Your task to perform on an android device: open chrome and create a bookmark for the current page Image 0: 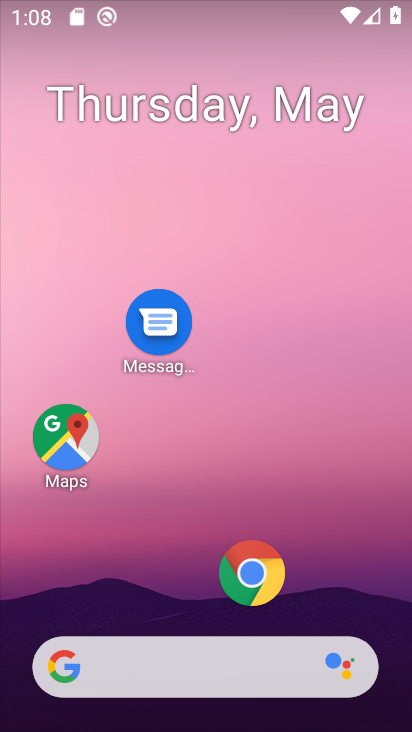
Step 0: drag from (209, 619) to (209, 31)
Your task to perform on an android device: open chrome and create a bookmark for the current page Image 1: 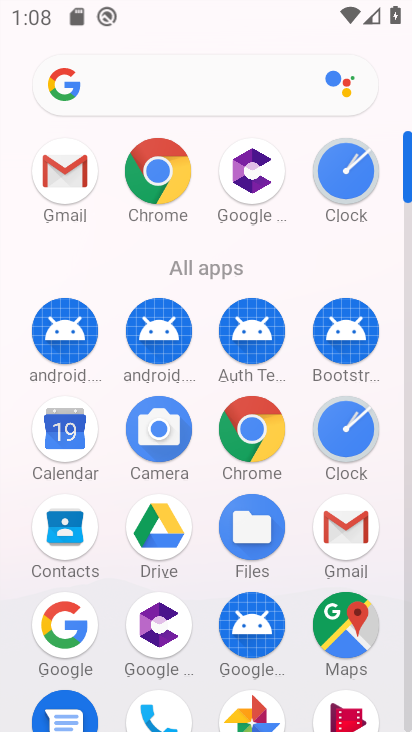
Step 1: click (143, 162)
Your task to perform on an android device: open chrome and create a bookmark for the current page Image 2: 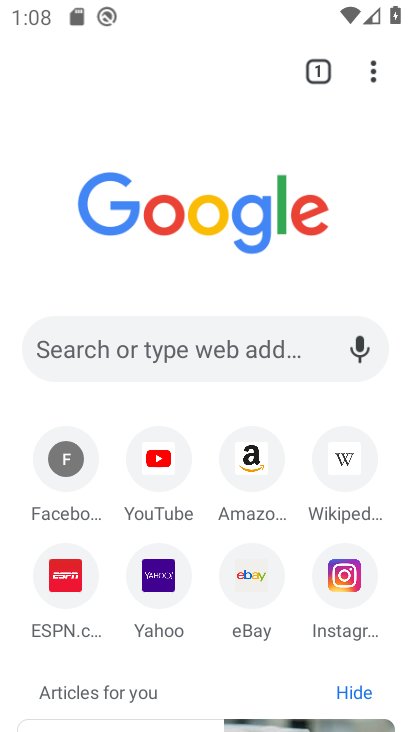
Step 2: click (373, 92)
Your task to perform on an android device: open chrome and create a bookmark for the current page Image 3: 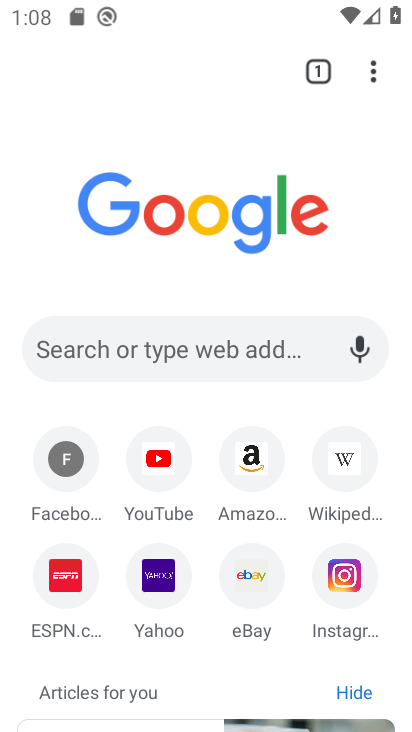
Step 3: click (361, 61)
Your task to perform on an android device: open chrome and create a bookmark for the current page Image 4: 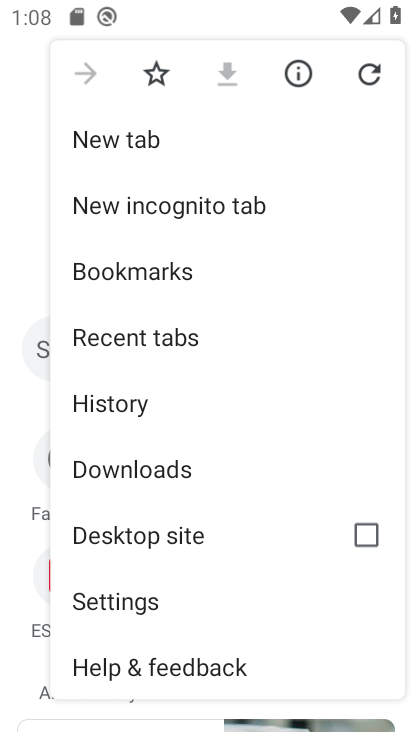
Step 4: click (154, 73)
Your task to perform on an android device: open chrome and create a bookmark for the current page Image 5: 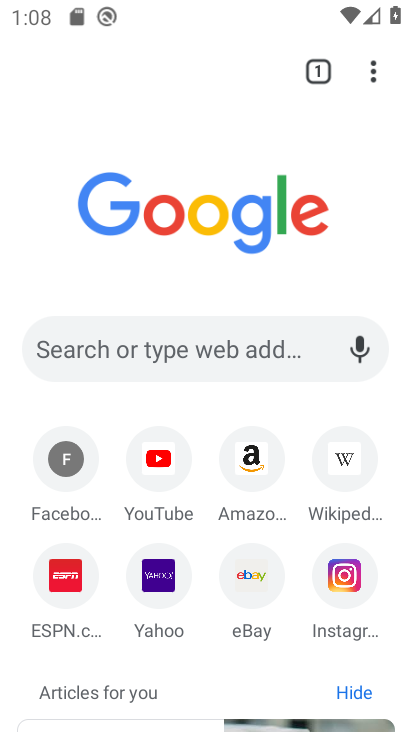
Step 5: task complete